Your task to perform on an android device: Turn off the flashlight Image 0: 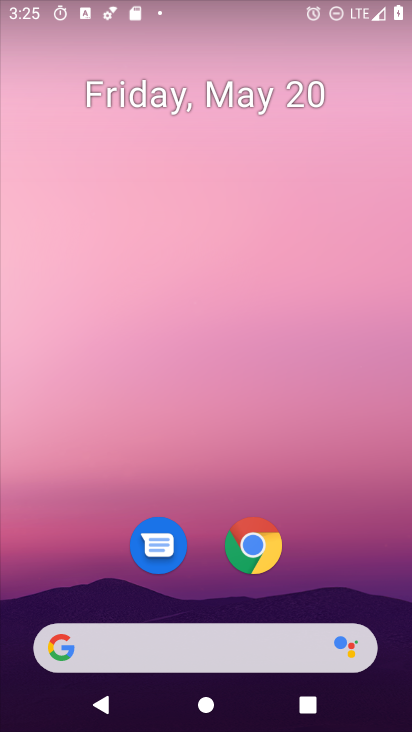
Step 0: drag from (253, 127) to (242, 21)
Your task to perform on an android device: Turn off the flashlight Image 1: 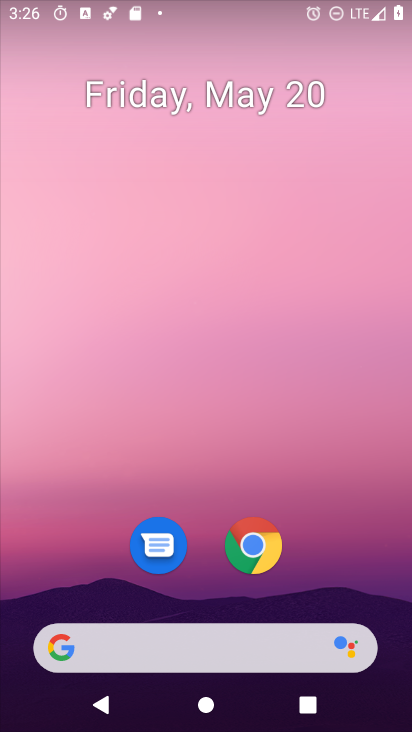
Step 1: task complete